Your task to perform on an android device: delete a single message in the gmail app Image 0: 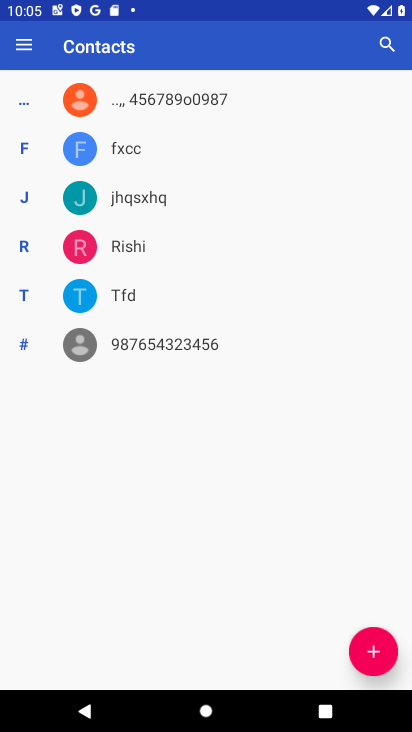
Step 0: press home button
Your task to perform on an android device: delete a single message in the gmail app Image 1: 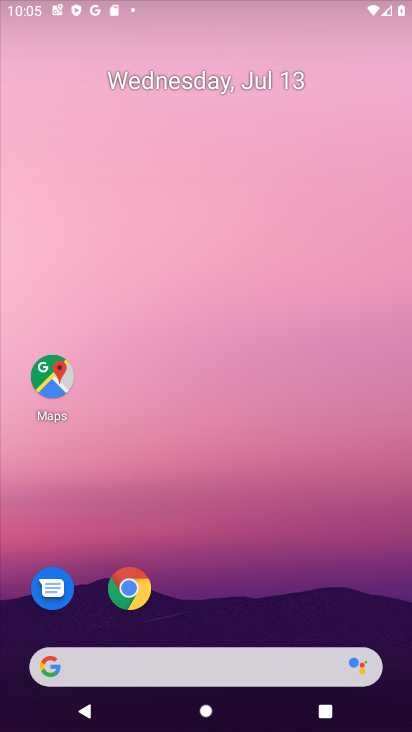
Step 1: drag from (198, 600) to (210, 76)
Your task to perform on an android device: delete a single message in the gmail app Image 2: 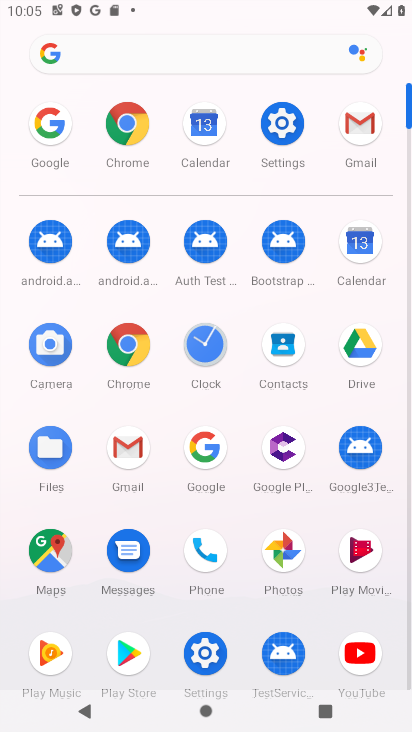
Step 2: click (132, 449)
Your task to perform on an android device: delete a single message in the gmail app Image 3: 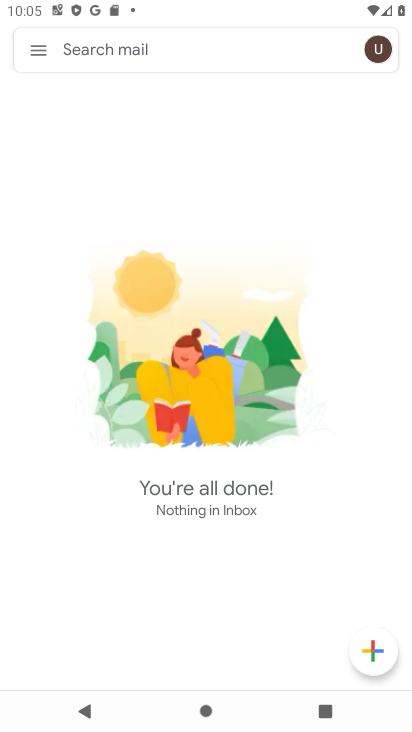
Step 3: click (36, 45)
Your task to perform on an android device: delete a single message in the gmail app Image 4: 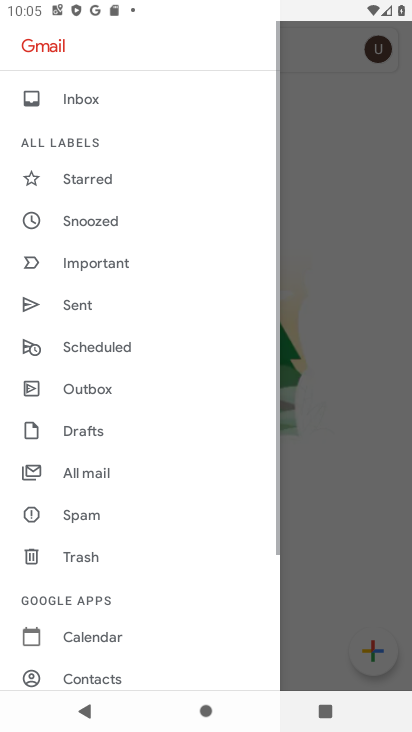
Step 4: click (125, 469)
Your task to perform on an android device: delete a single message in the gmail app Image 5: 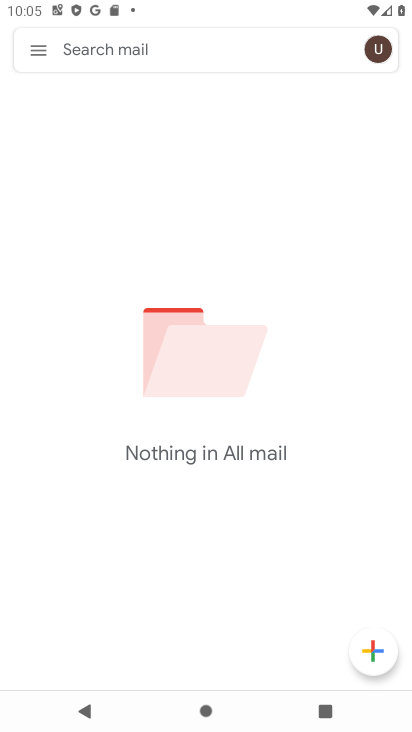
Step 5: task complete